Your task to perform on an android device: Open Android settings Image 0: 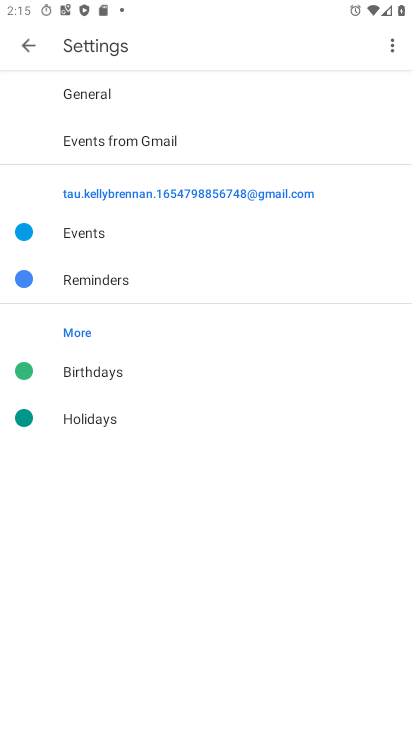
Step 0: press home button
Your task to perform on an android device: Open Android settings Image 1: 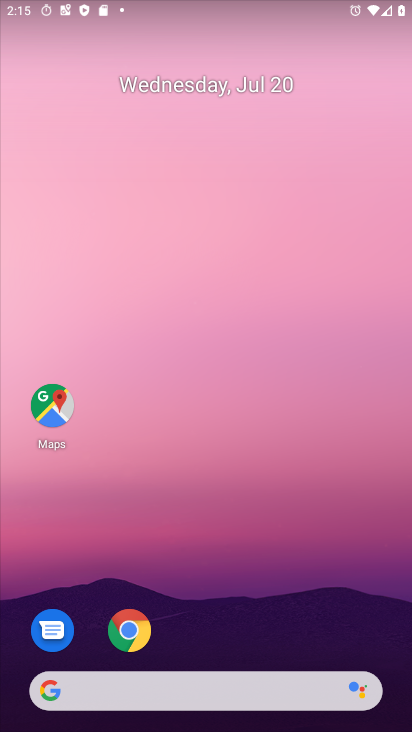
Step 1: drag from (178, 693) to (335, 81)
Your task to perform on an android device: Open Android settings Image 2: 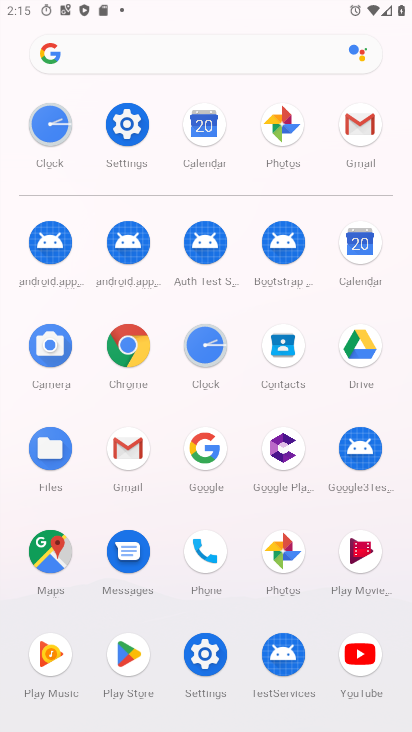
Step 2: click (133, 118)
Your task to perform on an android device: Open Android settings Image 3: 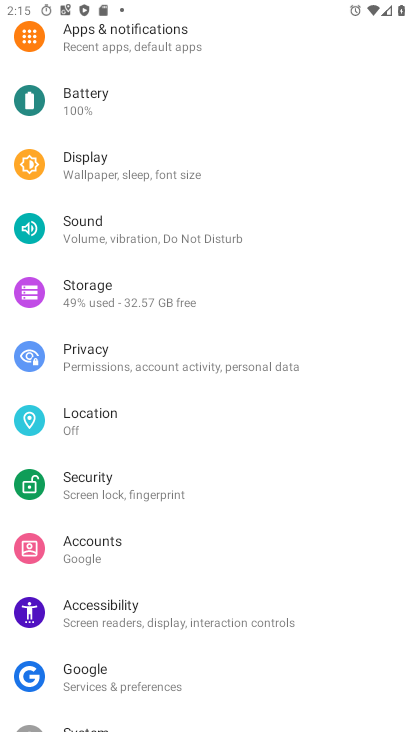
Step 3: task complete